Your task to perform on an android device: toggle javascript in the chrome app Image 0: 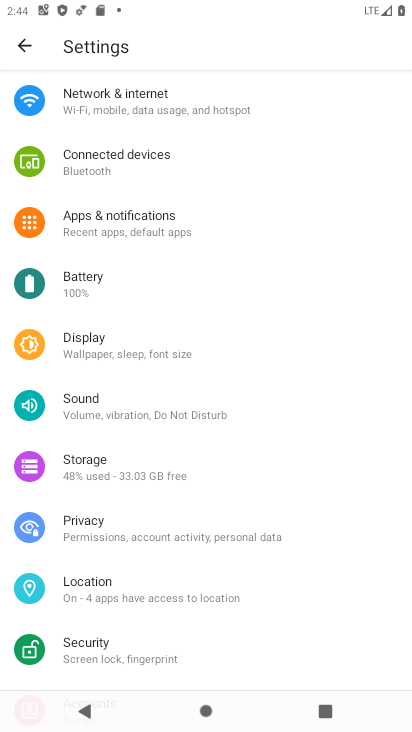
Step 0: press home button
Your task to perform on an android device: toggle javascript in the chrome app Image 1: 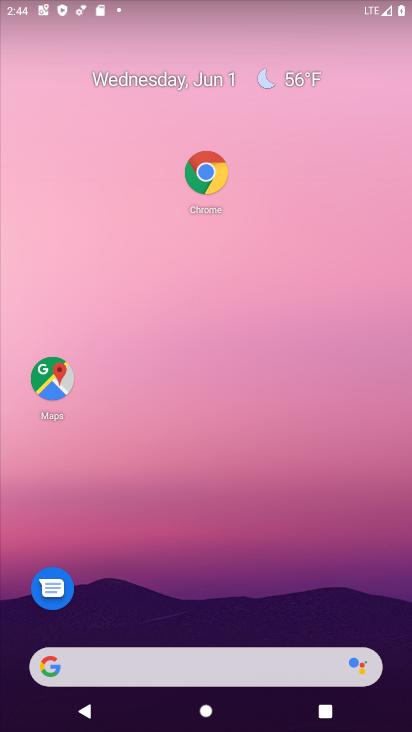
Step 1: click (204, 170)
Your task to perform on an android device: toggle javascript in the chrome app Image 2: 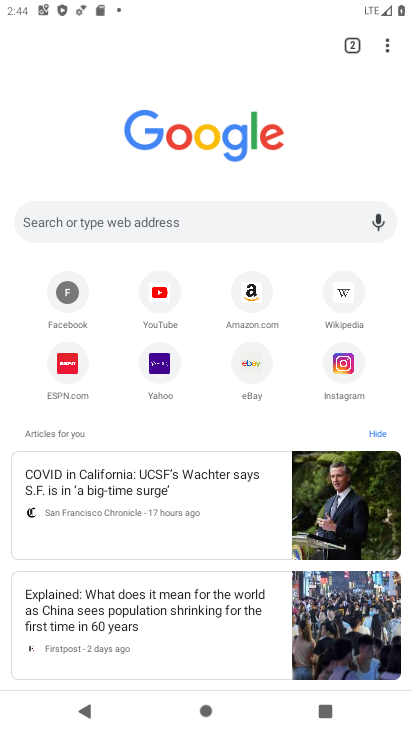
Step 2: click (382, 46)
Your task to perform on an android device: toggle javascript in the chrome app Image 3: 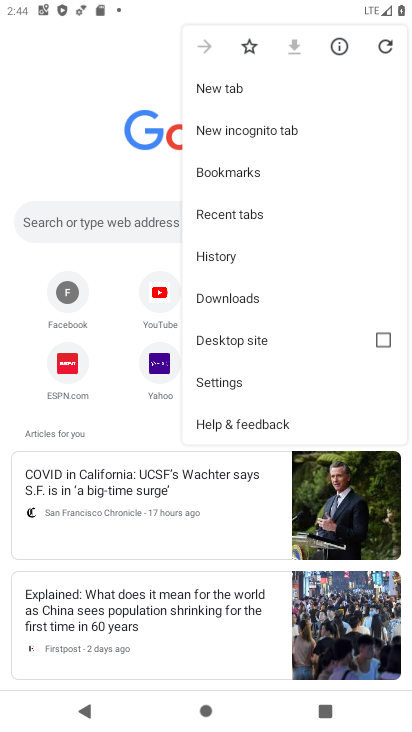
Step 3: click (239, 381)
Your task to perform on an android device: toggle javascript in the chrome app Image 4: 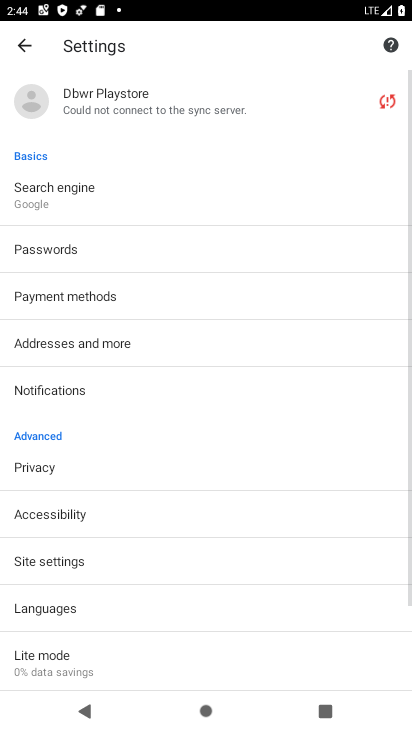
Step 4: click (36, 569)
Your task to perform on an android device: toggle javascript in the chrome app Image 5: 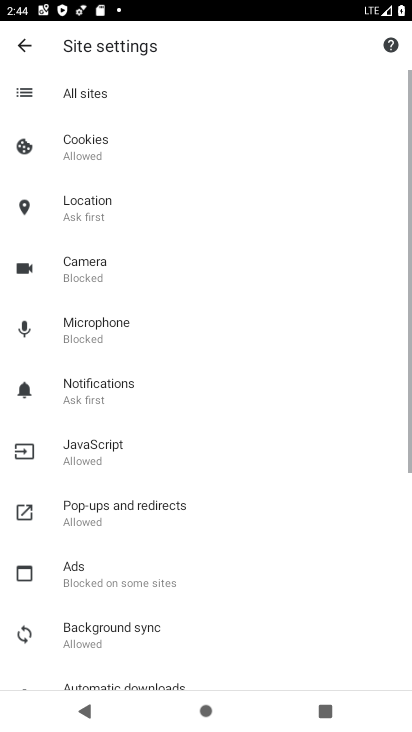
Step 5: click (87, 465)
Your task to perform on an android device: toggle javascript in the chrome app Image 6: 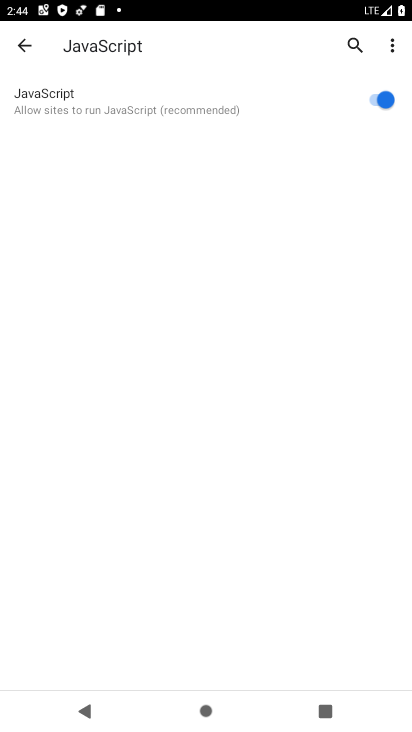
Step 6: click (393, 98)
Your task to perform on an android device: toggle javascript in the chrome app Image 7: 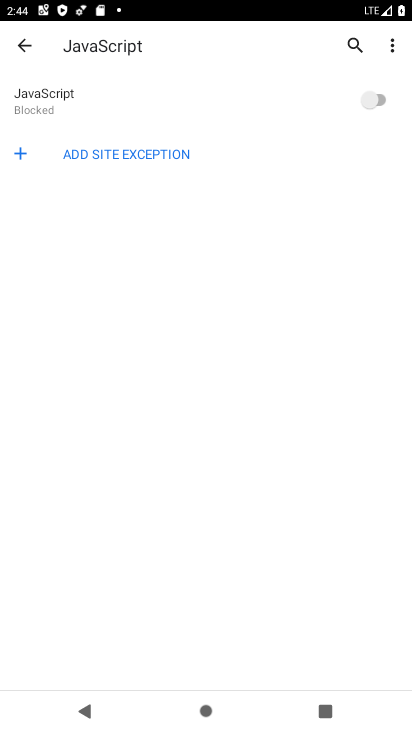
Step 7: task complete